Your task to perform on an android device: delete the emails in spam in the gmail app Image 0: 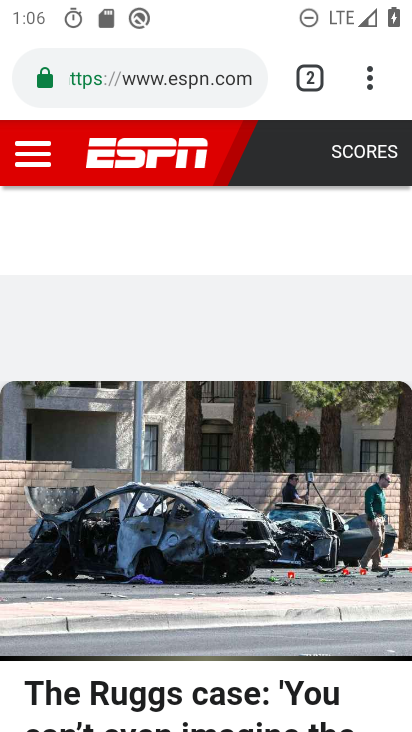
Step 0: press home button
Your task to perform on an android device: delete the emails in spam in the gmail app Image 1: 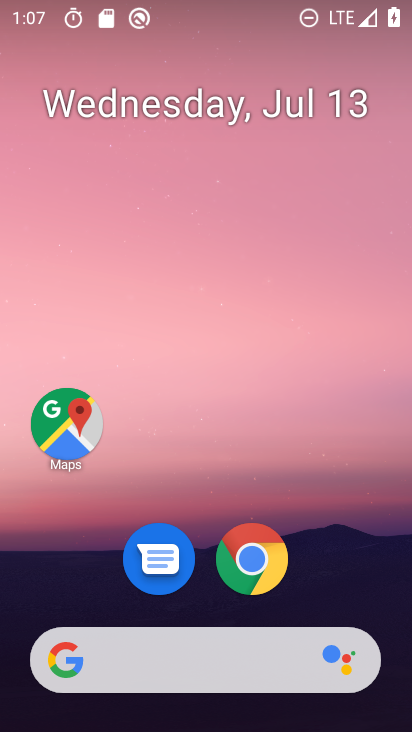
Step 1: drag from (236, 659) to (309, 117)
Your task to perform on an android device: delete the emails in spam in the gmail app Image 2: 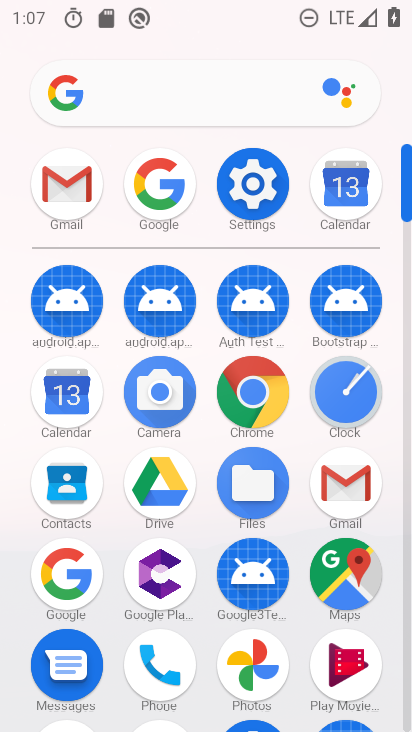
Step 2: click (361, 495)
Your task to perform on an android device: delete the emails in spam in the gmail app Image 3: 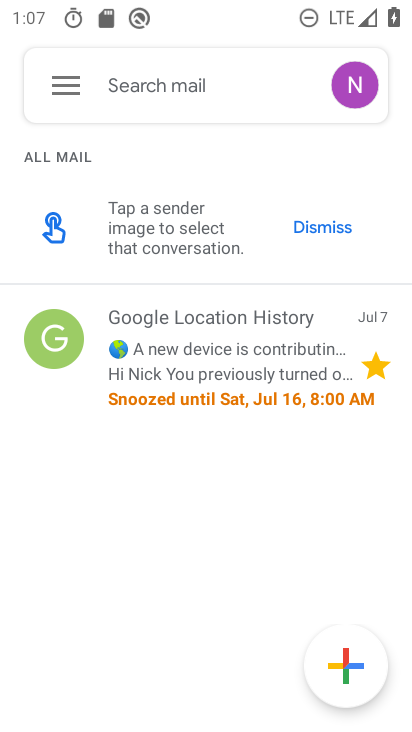
Step 3: click (59, 98)
Your task to perform on an android device: delete the emails in spam in the gmail app Image 4: 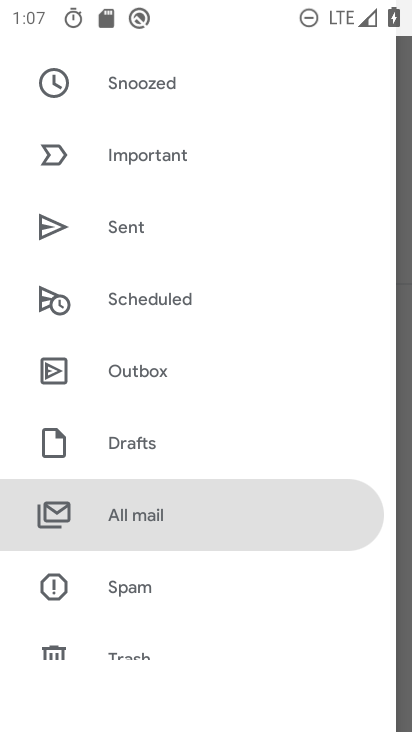
Step 4: click (124, 593)
Your task to perform on an android device: delete the emails in spam in the gmail app Image 5: 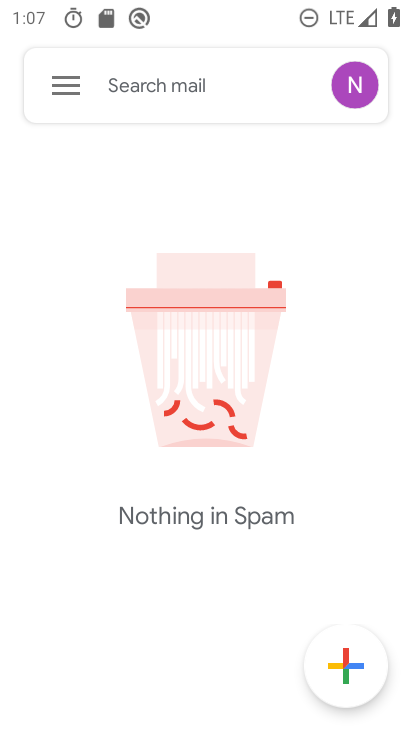
Step 5: task complete